Your task to perform on an android device: Go to CNN.com Image 0: 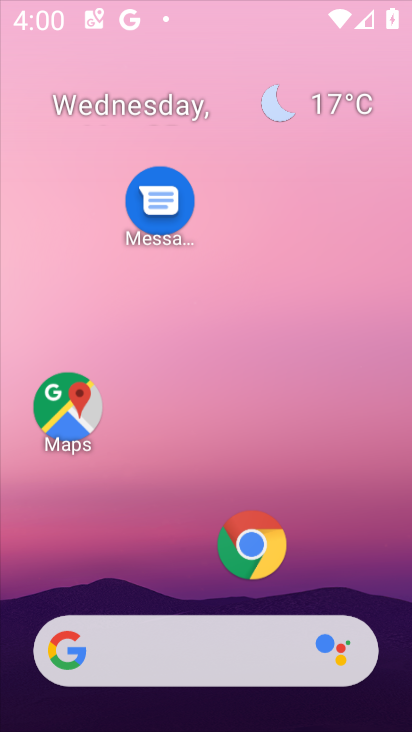
Step 0: drag from (340, 546) to (262, 71)
Your task to perform on an android device: Go to CNN.com Image 1: 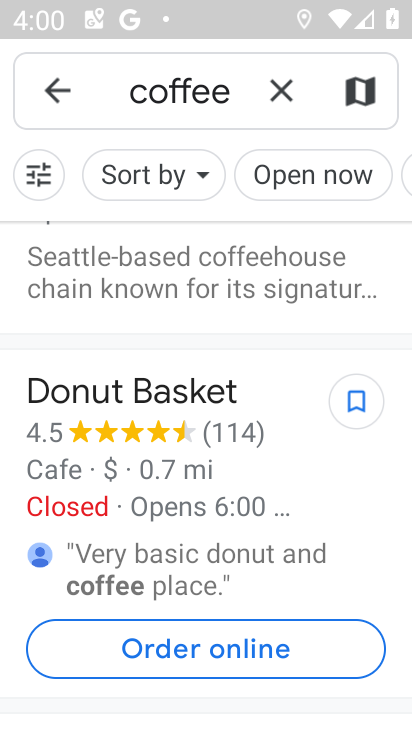
Step 1: press home button
Your task to perform on an android device: Go to CNN.com Image 2: 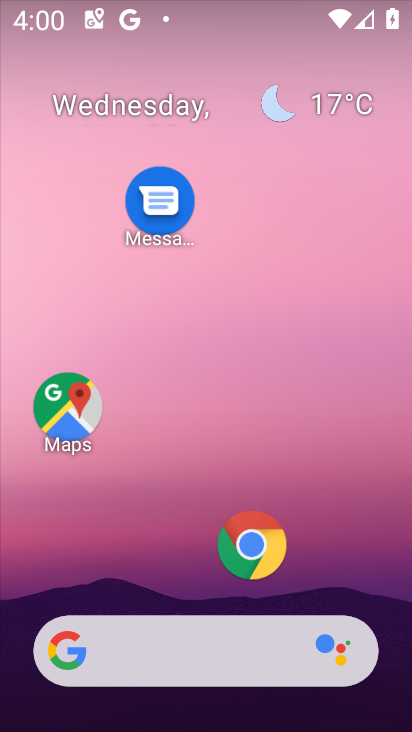
Step 2: click (256, 552)
Your task to perform on an android device: Go to CNN.com Image 3: 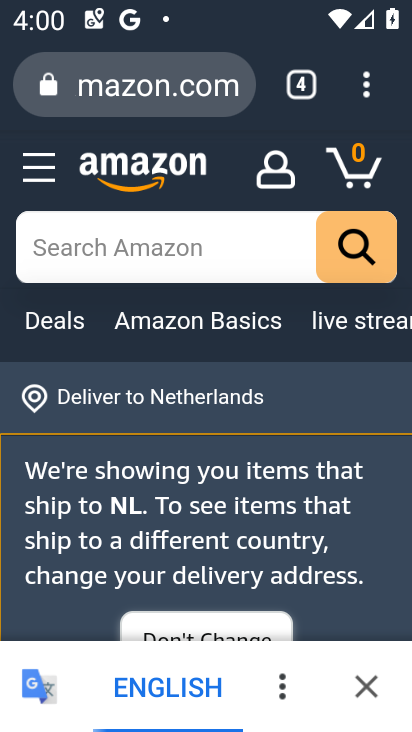
Step 3: click (308, 92)
Your task to perform on an android device: Go to CNN.com Image 4: 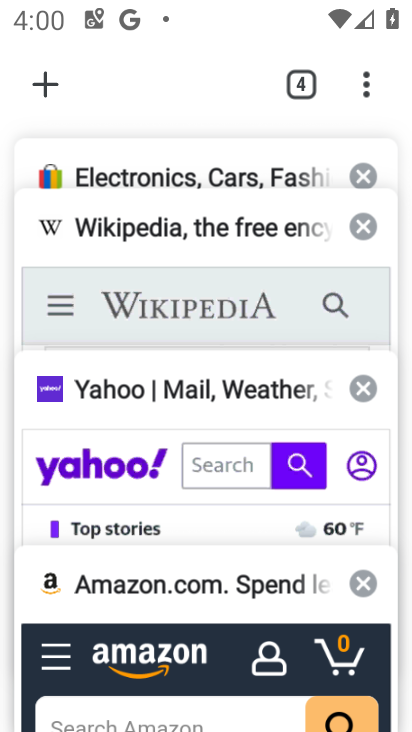
Step 4: drag from (155, 145) to (178, 473)
Your task to perform on an android device: Go to CNN.com Image 5: 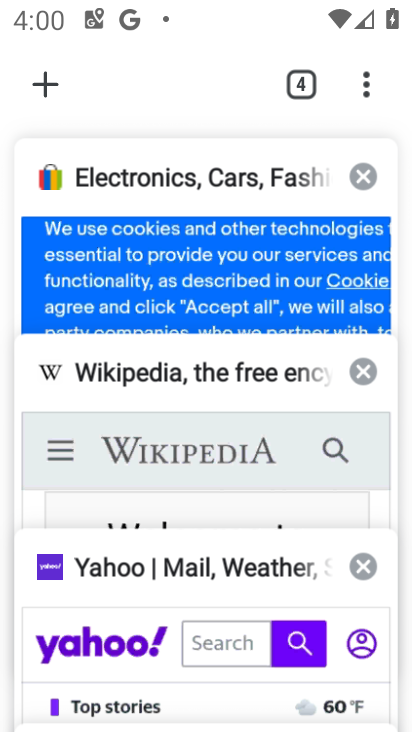
Step 5: drag from (148, 196) to (129, 630)
Your task to perform on an android device: Go to CNN.com Image 6: 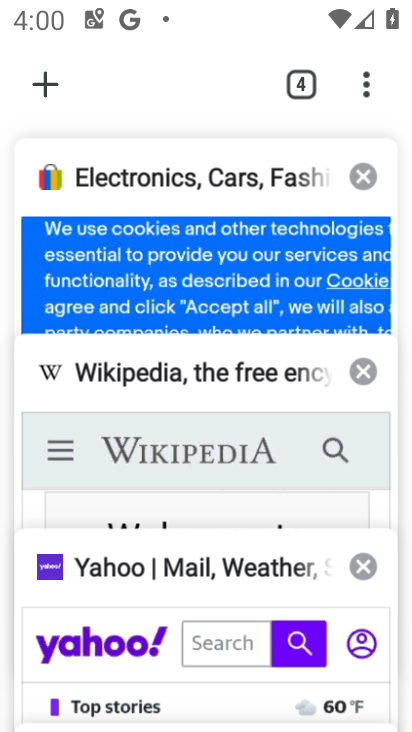
Step 6: click (24, 84)
Your task to perform on an android device: Go to CNN.com Image 7: 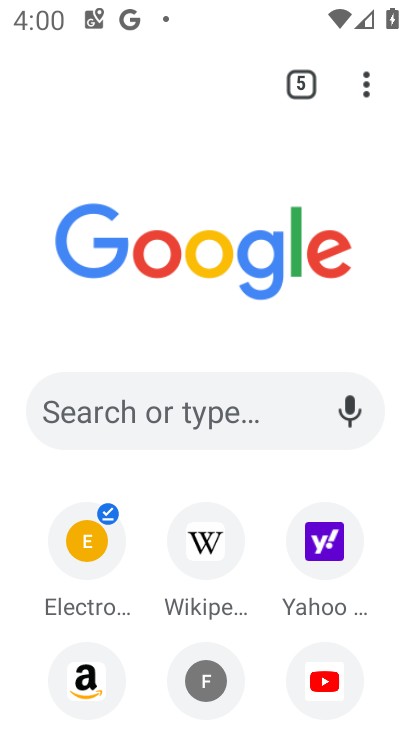
Step 7: drag from (258, 625) to (287, 198)
Your task to perform on an android device: Go to CNN.com Image 8: 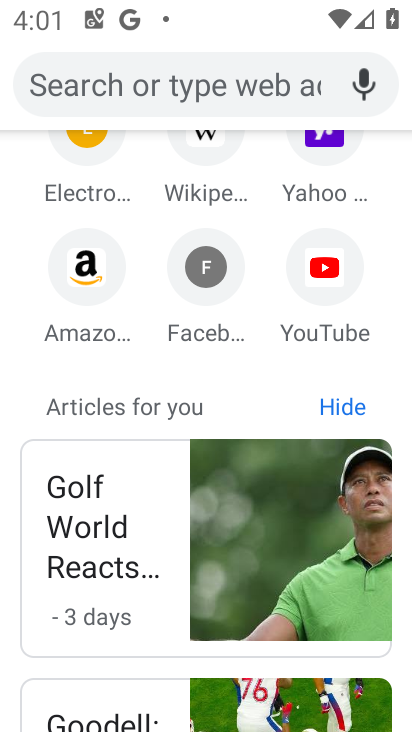
Step 8: drag from (289, 485) to (284, 602)
Your task to perform on an android device: Go to CNN.com Image 9: 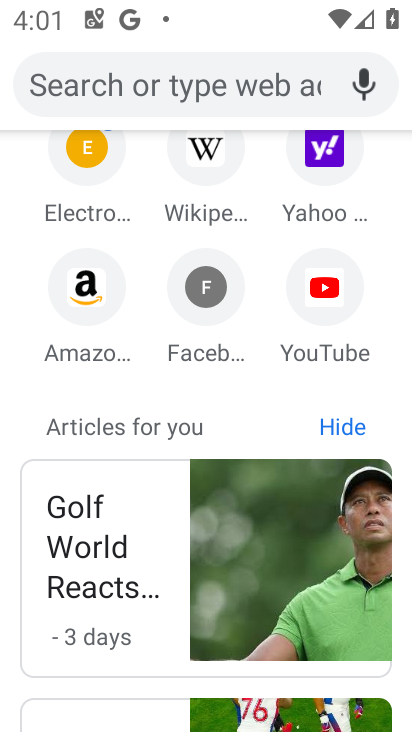
Step 9: drag from (265, 252) to (248, 703)
Your task to perform on an android device: Go to CNN.com Image 10: 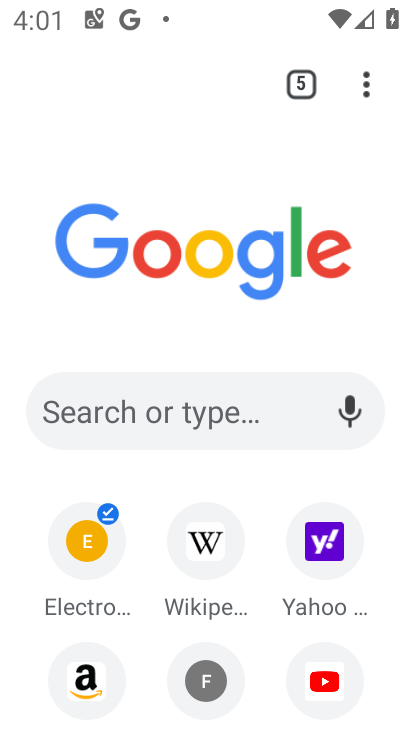
Step 10: click (199, 429)
Your task to perform on an android device: Go to CNN.com Image 11: 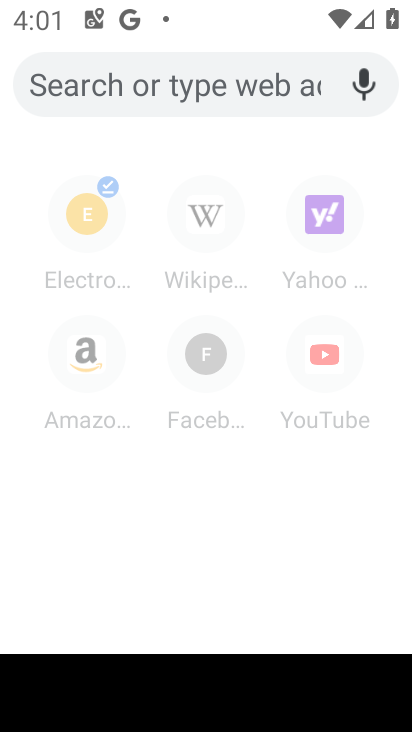
Step 11: type "CNN.com"
Your task to perform on an android device: Go to CNN.com Image 12: 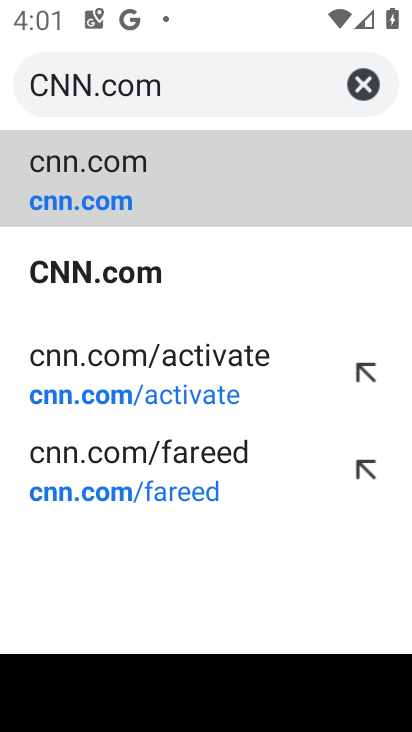
Step 12: click (157, 161)
Your task to perform on an android device: Go to CNN.com Image 13: 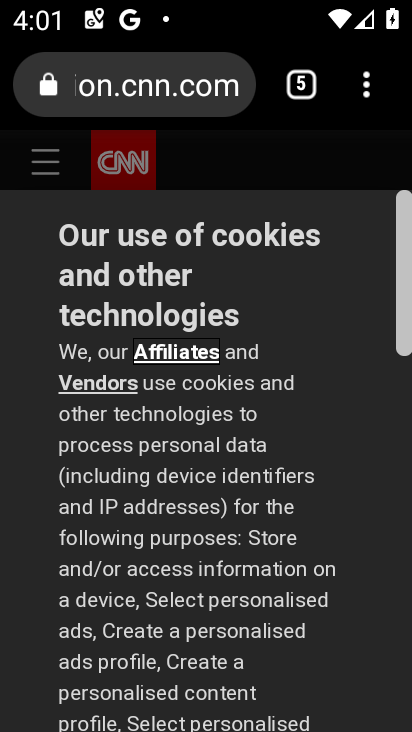
Step 13: task complete